Your task to perform on an android device: turn off javascript in the chrome app Image 0: 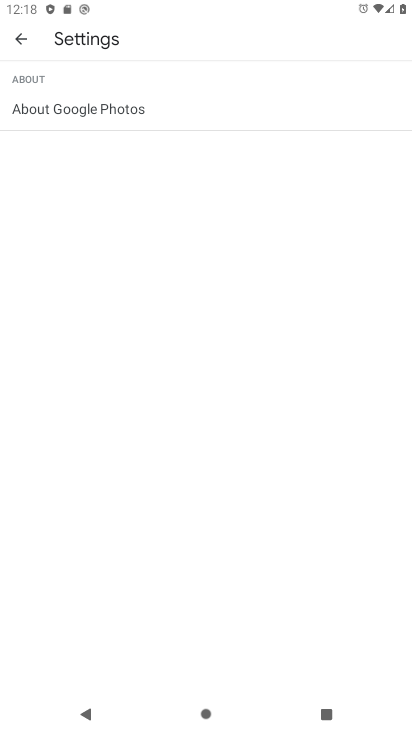
Step 0: press back button
Your task to perform on an android device: turn off javascript in the chrome app Image 1: 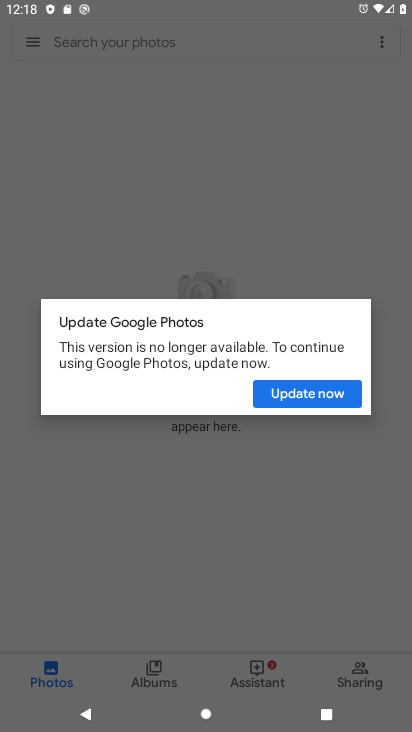
Step 1: press back button
Your task to perform on an android device: turn off javascript in the chrome app Image 2: 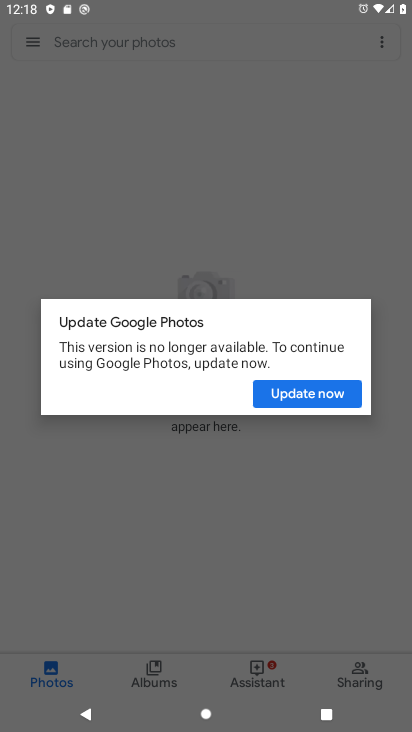
Step 2: press home button
Your task to perform on an android device: turn off javascript in the chrome app Image 3: 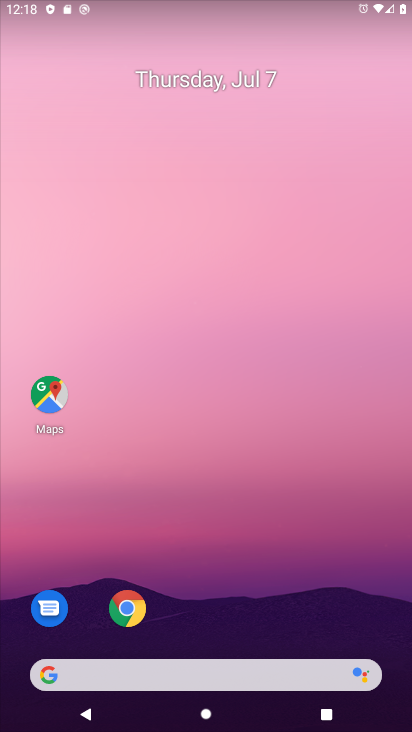
Step 3: click (124, 608)
Your task to perform on an android device: turn off javascript in the chrome app Image 4: 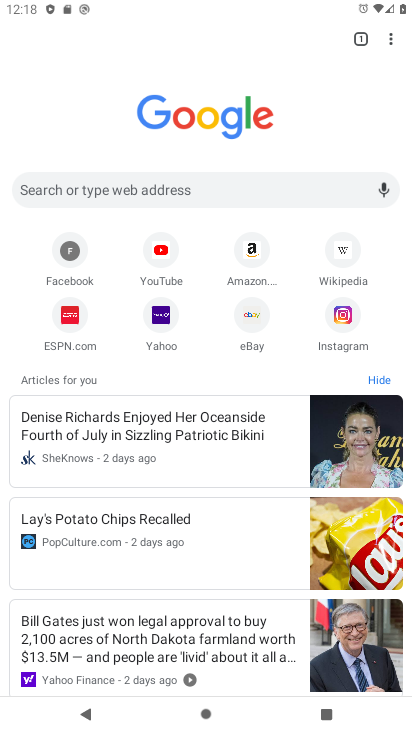
Step 4: drag from (393, 39) to (259, 325)
Your task to perform on an android device: turn off javascript in the chrome app Image 5: 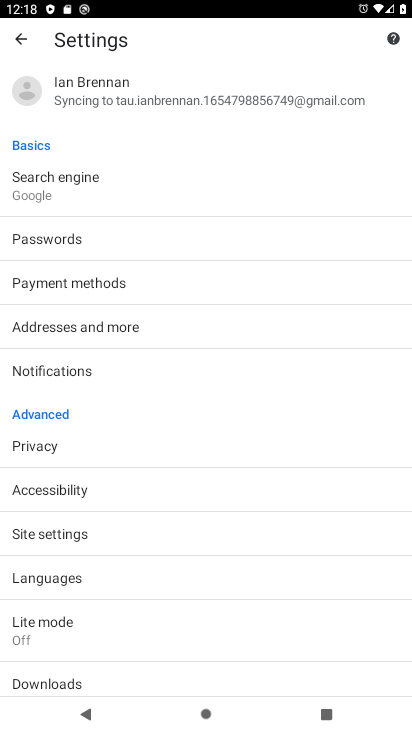
Step 5: click (74, 532)
Your task to perform on an android device: turn off javascript in the chrome app Image 6: 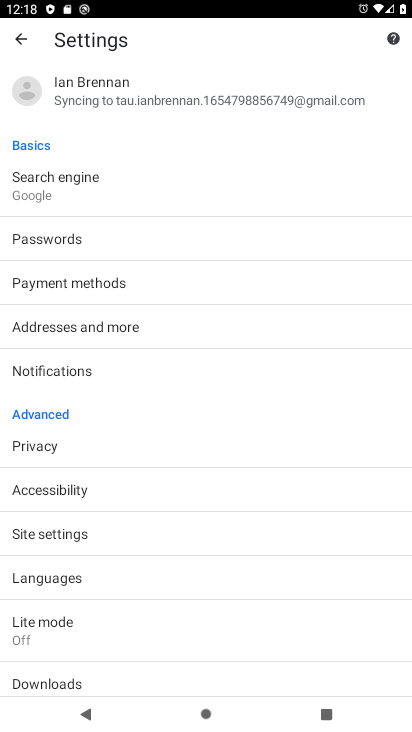
Step 6: drag from (78, 615) to (133, 268)
Your task to perform on an android device: turn off javascript in the chrome app Image 7: 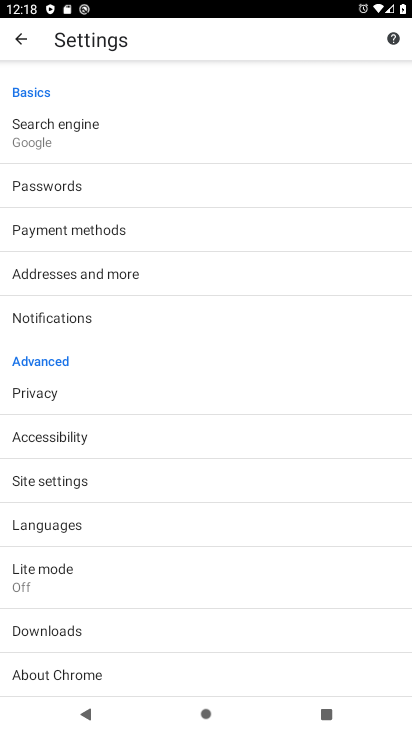
Step 7: click (40, 475)
Your task to perform on an android device: turn off javascript in the chrome app Image 8: 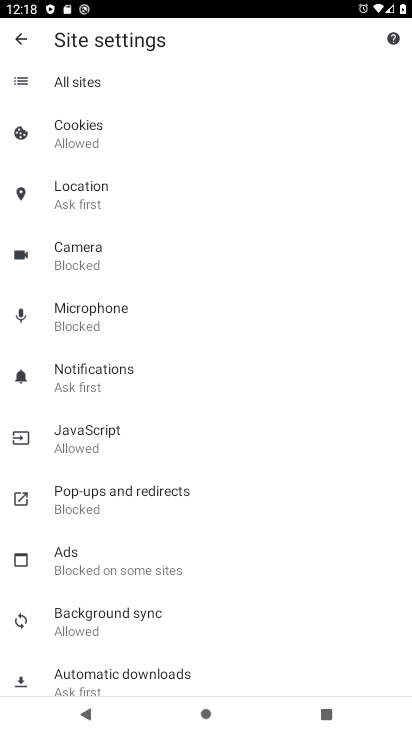
Step 8: click (79, 427)
Your task to perform on an android device: turn off javascript in the chrome app Image 9: 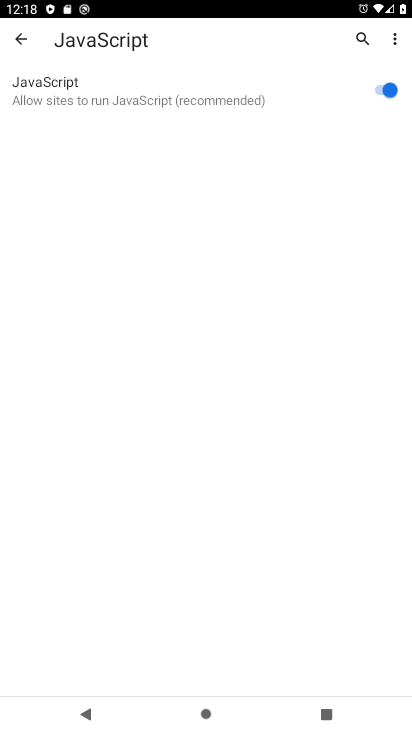
Step 9: click (381, 88)
Your task to perform on an android device: turn off javascript in the chrome app Image 10: 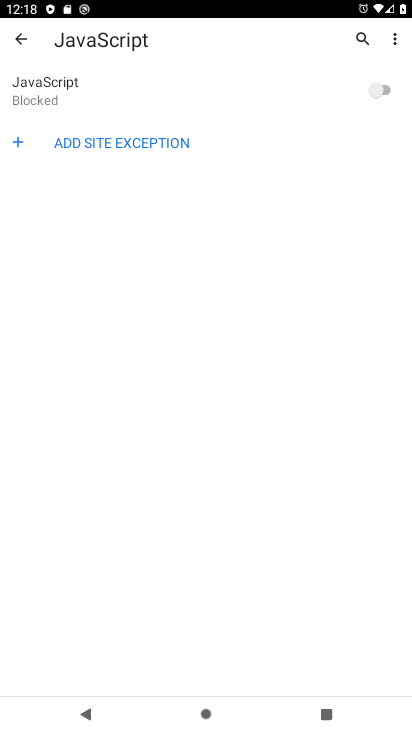
Step 10: task complete